Your task to perform on an android device: Go to Google Image 0: 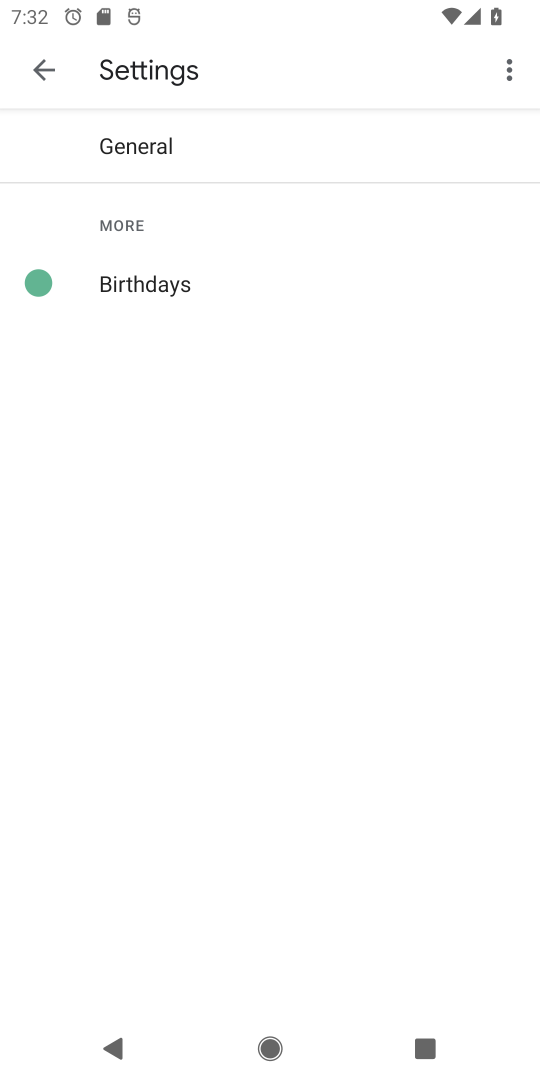
Step 0: press home button
Your task to perform on an android device: Go to Google Image 1: 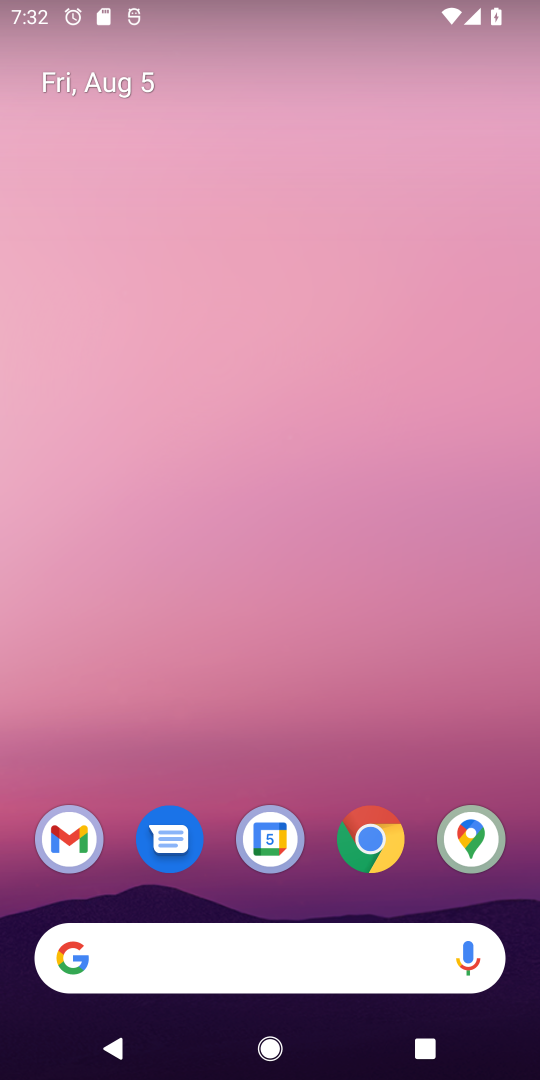
Step 1: drag from (308, 751) to (310, 14)
Your task to perform on an android device: Go to Google Image 2: 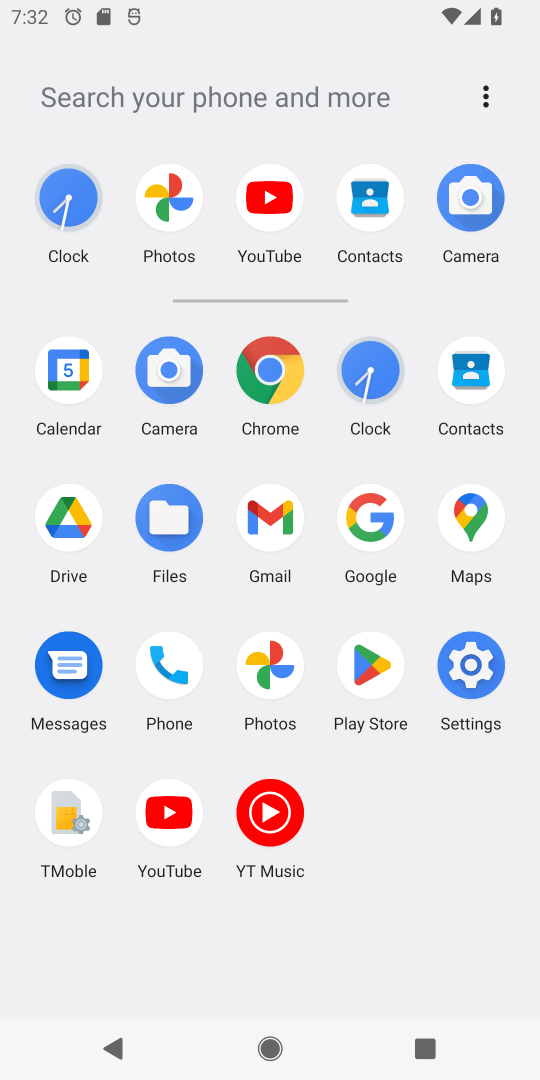
Step 2: click (352, 511)
Your task to perform on an android device: Go to Google Image 3: 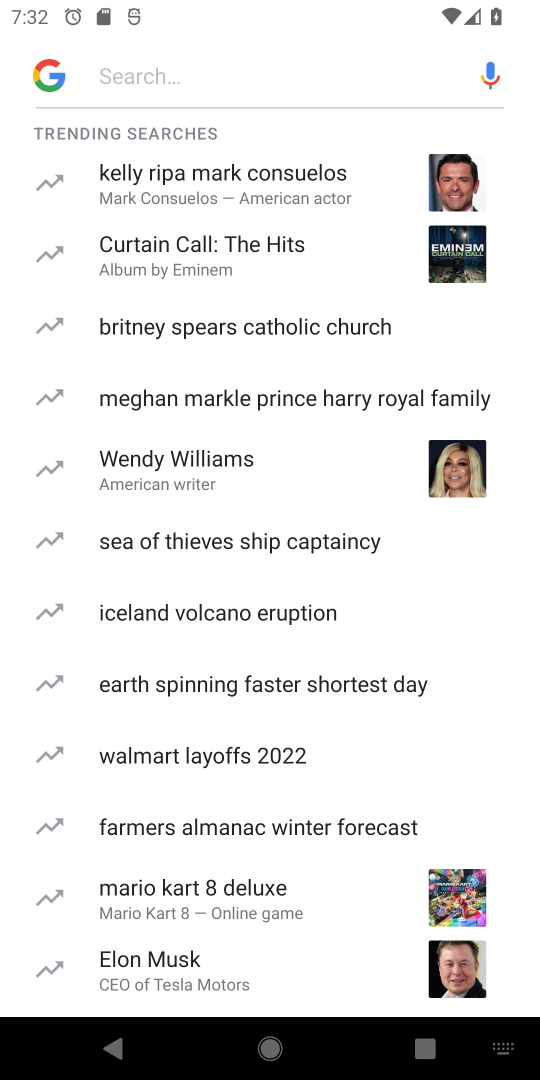
Step 3: task complete